Your task to perform on an android device: Open Google Image 0: 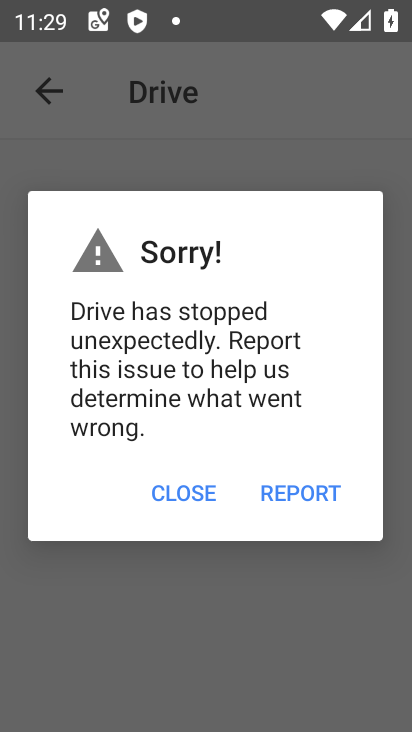
Step 0: press home button
Your task to perform on an android device: Open Google Image 1: 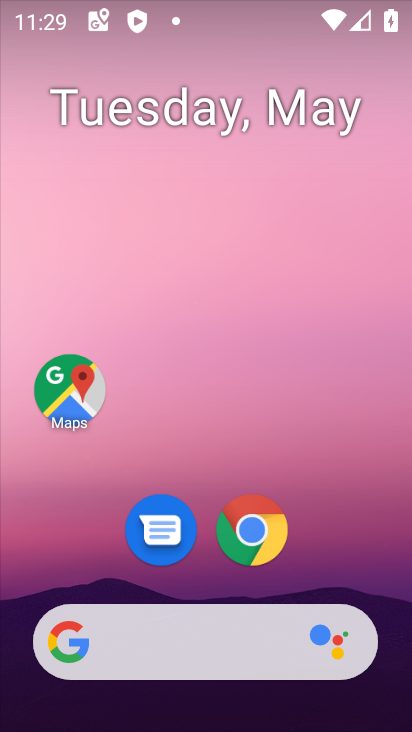
Step 1: drag from (199, 585) to (233, 219)
Your task to perform on an android device: Open Google Image 2: 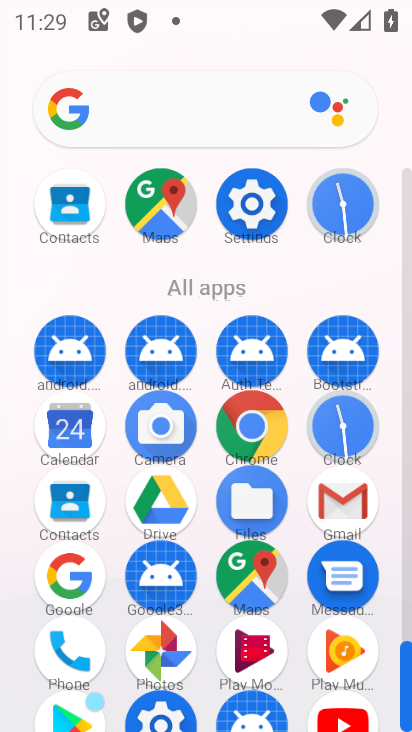
Step 2: click (64, 572)
Your task to perform on an android device: Open Google Image 3: 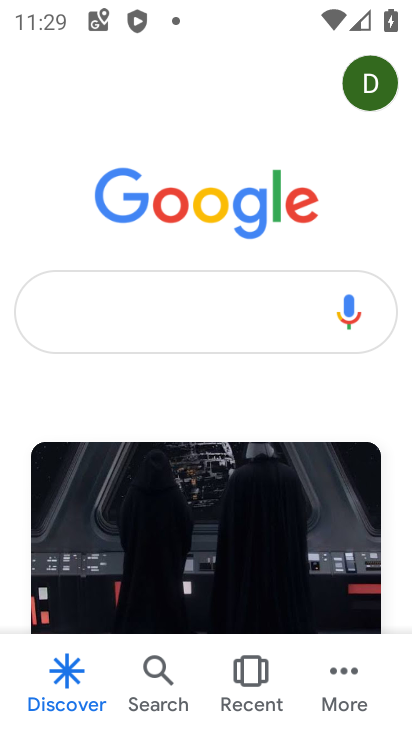
Step 3: task complete